Your task to perform on an android device: open chrome and create a bookmark for the current page Image 0: 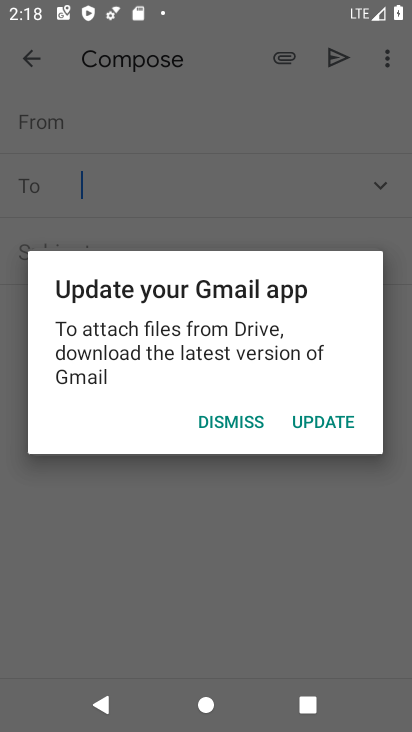
Step 0: press home button
Your task to perform on an android device: open chrome and create a bookmark for the current page Image 1: 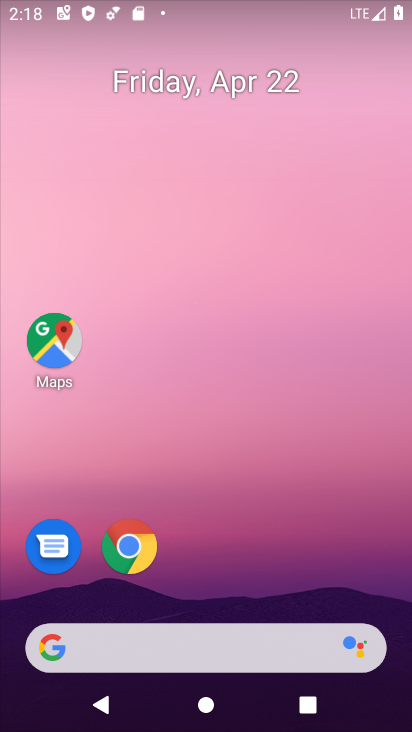
Step 1: drag from (257, 579) to (304, 92)
Your task to perform on an android device: open chrome and create a bookmark for the current page Image 2: 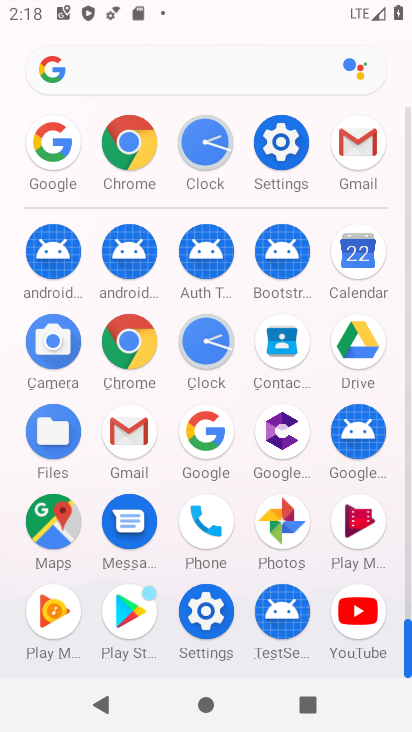
Step 2: click (137, 339)
Your task to perform on an android device: open chrome and create a bookmark for the current page Image 3: 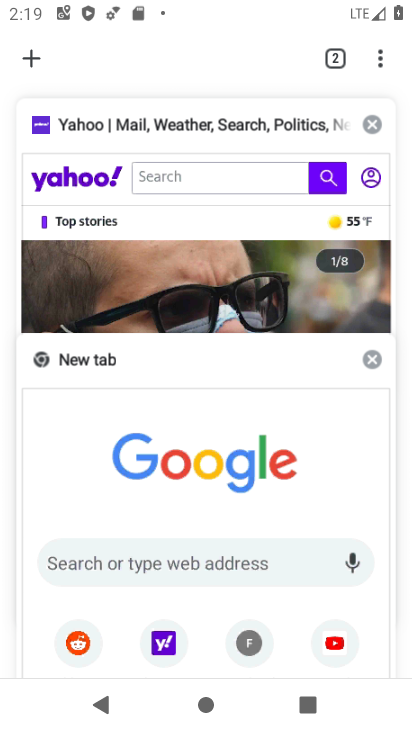
Step 3: click (240, 470)
Your task to perform on an android device: open chrome and create a bookmark for the current page Image 4: 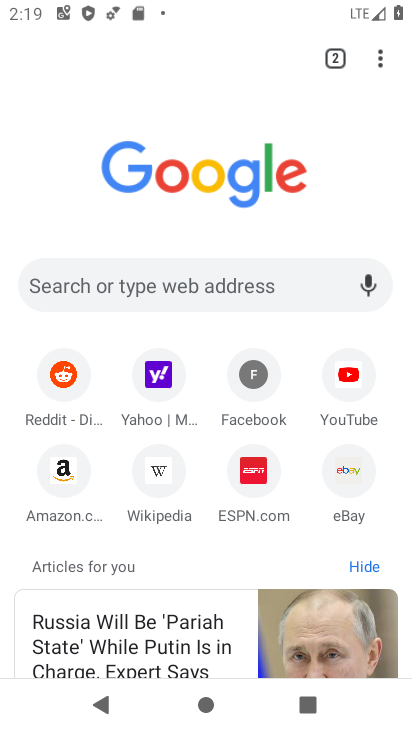
Step 4: click (155, 627)
Your task to perform on an android device: open chrome and create a bookmark for the current page Image 5: 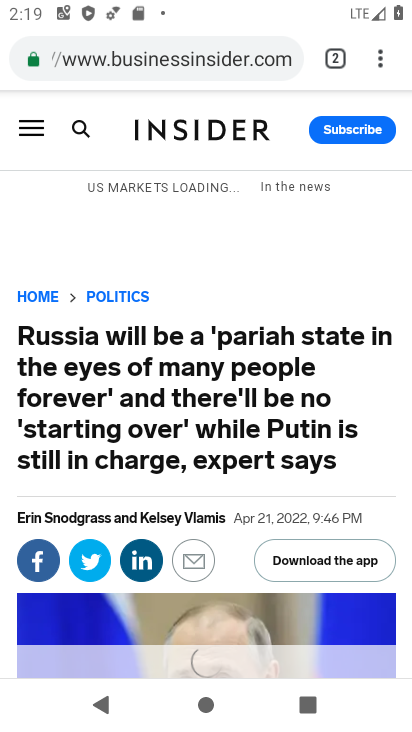
Step 5: click (384, 72)
Your task to perform on an android device: open chrome and create a bookmark for the current page Image 6: 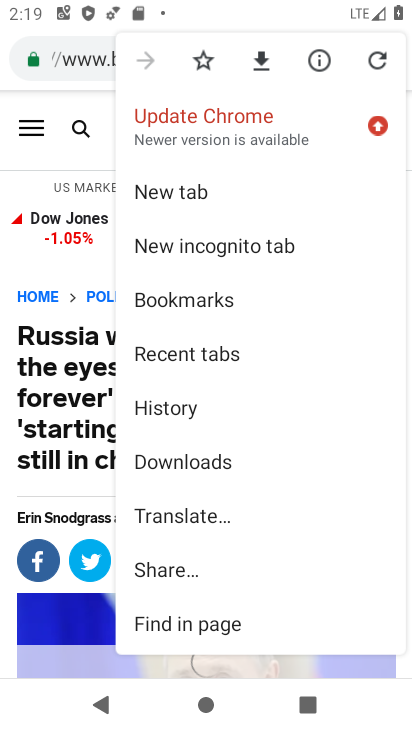
Step 6: click (204, 69)
Your task to perform on an android device: open chrome and create a bookmark for the current page Image 7: 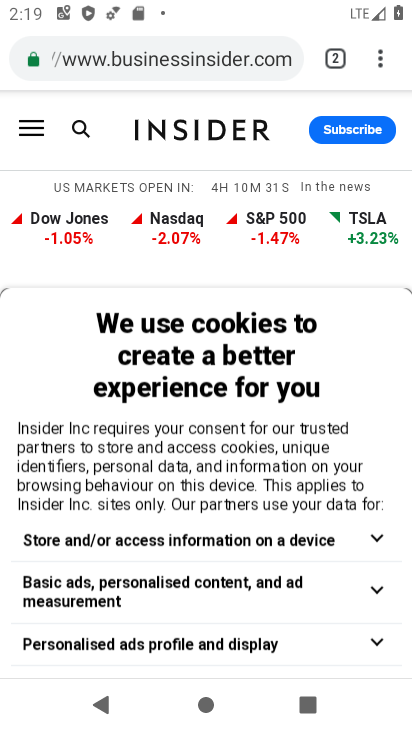
Step 7: task complete